Your task to perform on an android device: Go to notification settings Image 0: 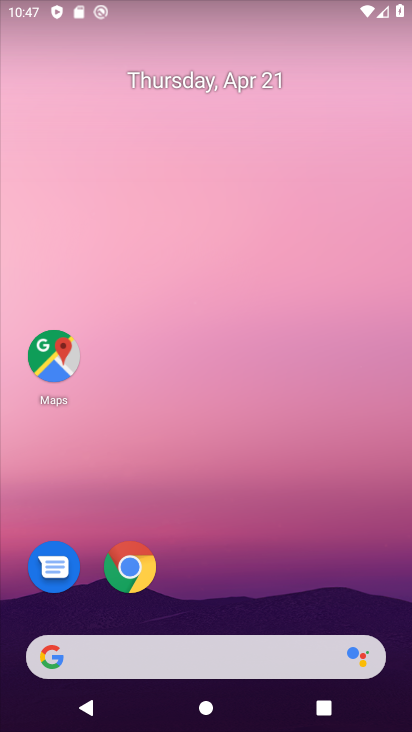
Step 0: drag from (201, 585) to (279, 72)
Your task to perform on an android device: Go to notification settings Image 1: 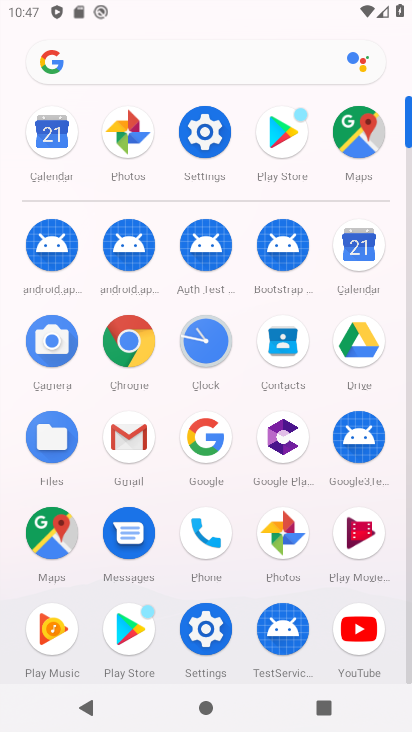
Step 1: click (210, 147)
Your task to perform on an android device: Go to notification settings Image 2: 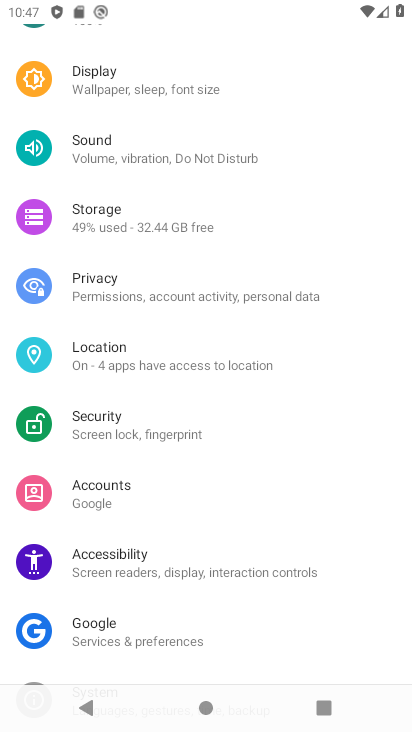
Step 2: drag from (175, 208) to (172, 577)
Your task to perform on an android device: Go to notification settings Image 3: 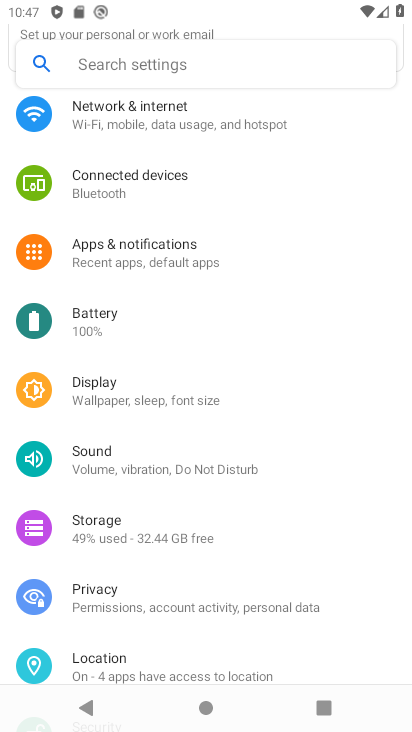
Step 3: click (168, 252)
Your task to perform on an android device: Go to notification settings Image 4: 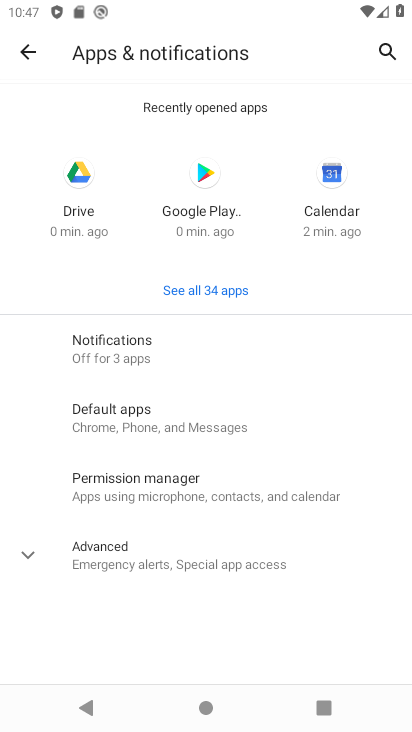
Step 4: click (140, 349)
Your task to perform on an android device: Go to notification settings Image 5: 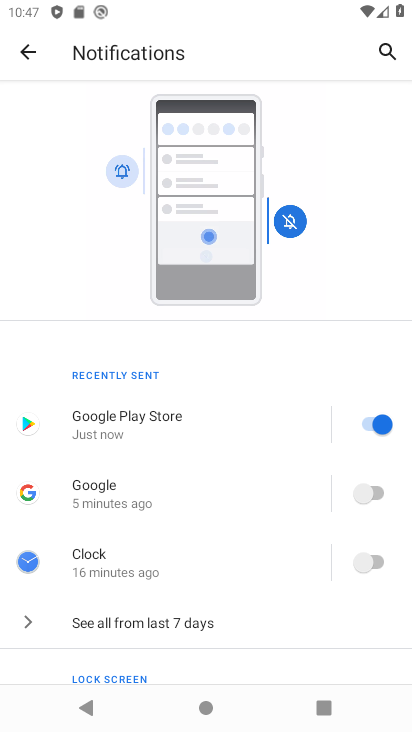
Step 5: task complete